Your task to perform on an android device: Open notification settings Image 0: 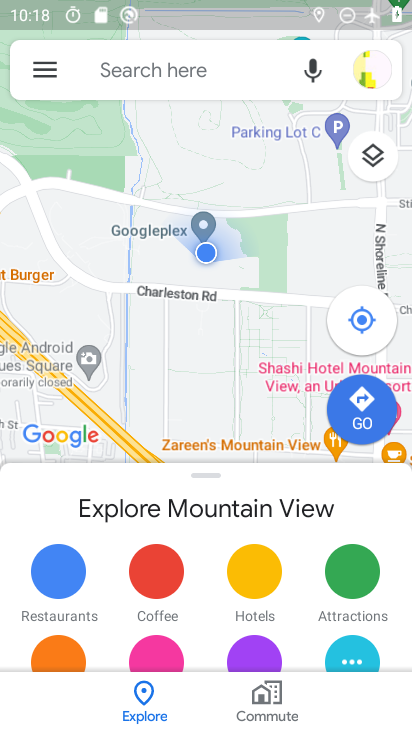
Step 0: press home button
Your task to perform on an android device: Open notification settings Image 1: 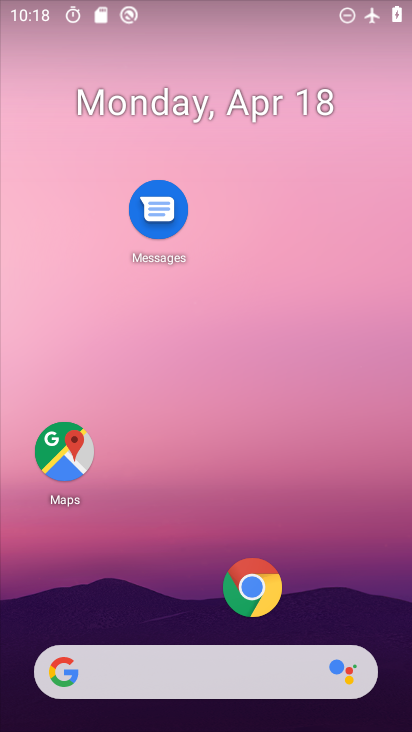
Step 1: drag from (190, 575) to (277, 25)
Your task to perform on an android device: Open notification settings Image 2: 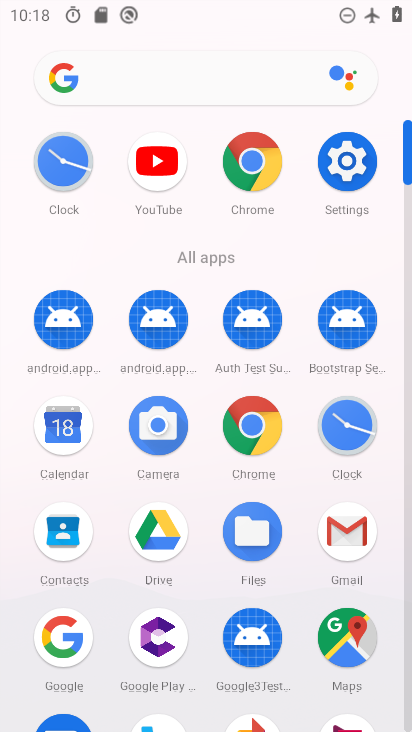
Step 2: click (359, 165)
Your task to perform on an android device: Open notification settings Image 3: 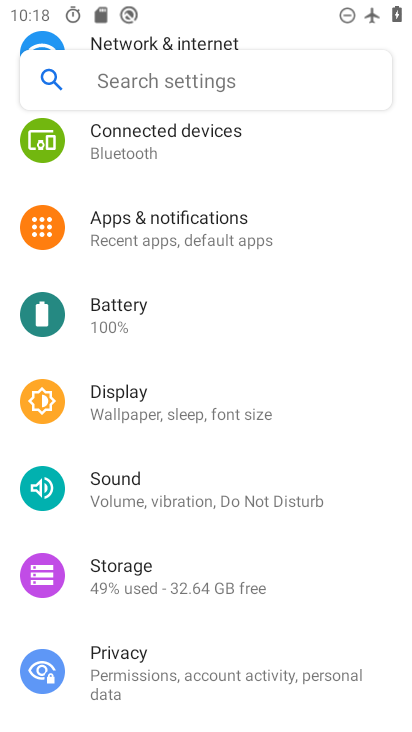
Step 3: click (200, 245)
Your task to perform on an android device: Open notification settings Image 4: 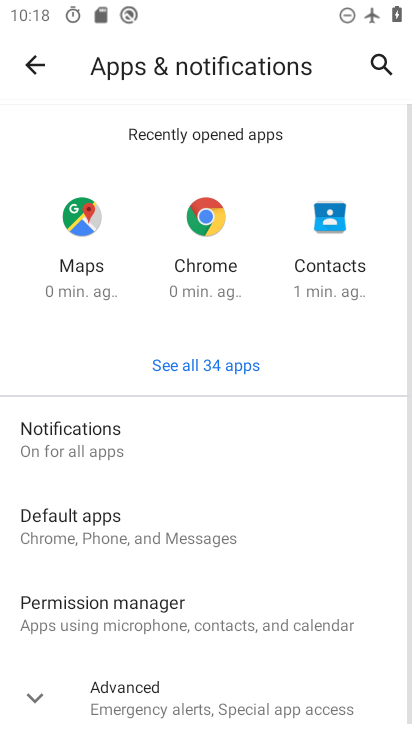
Step 4: click (76, 424)
Your task to perform on an android device: Open notification settings Image 5: 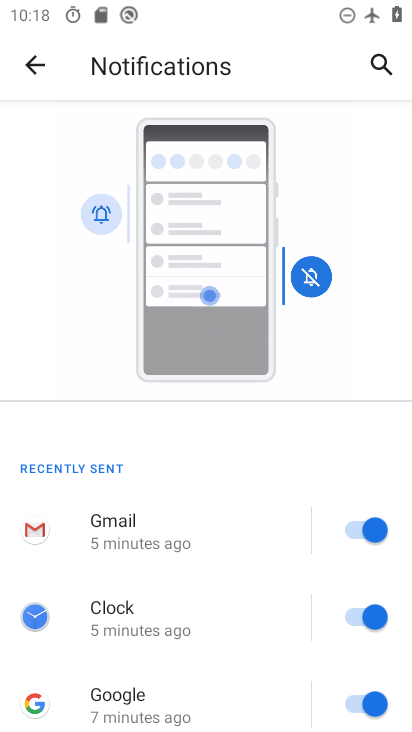
Step 5: task complete